Your task to perform on an android device: turn off priority inbox in the gmail app Image 0: 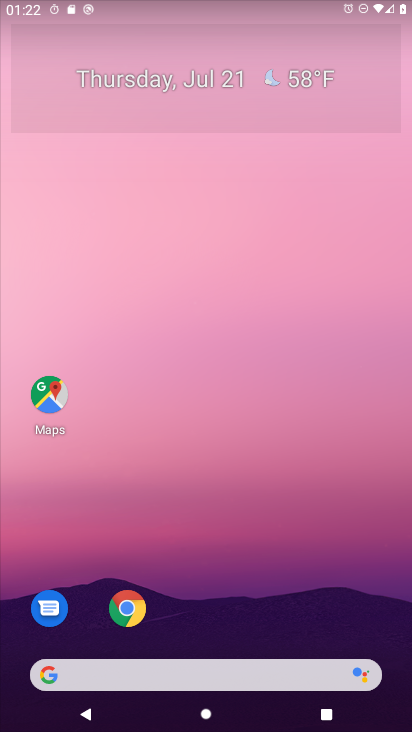
Step 0: press home button
Your task to perform on an android device: turn off priority inbox in the gmail app Image 1: 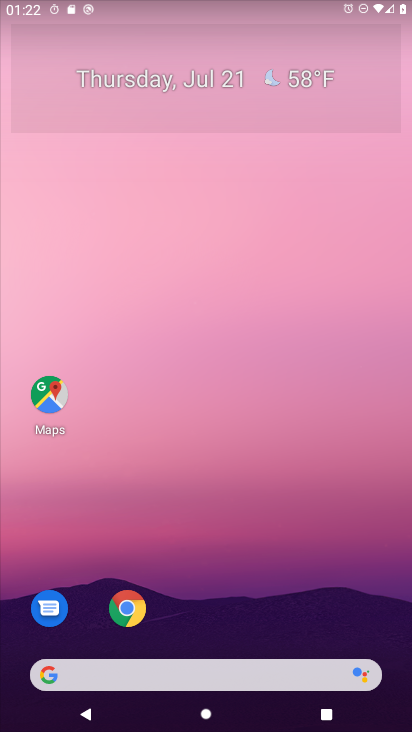
Step 1: drag from (196, 625) to (201, 24)
Your task to perform on an android device: turn off priority inbox in the gmail app Image 2: 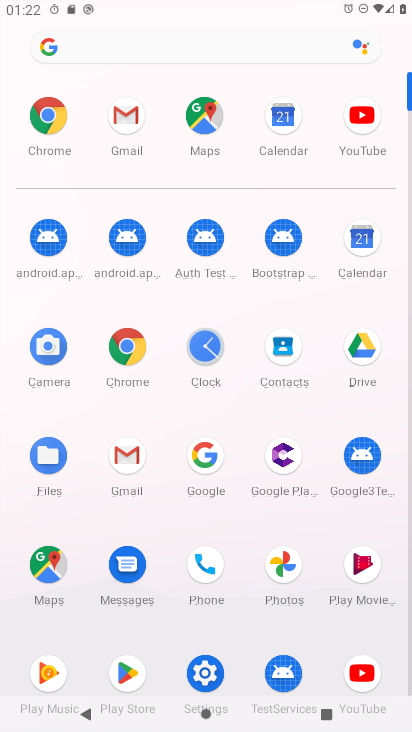
Step 2: click (122, 119)
Your task to perform on an android device: turn off priority inbox in the gmail app Image 3: 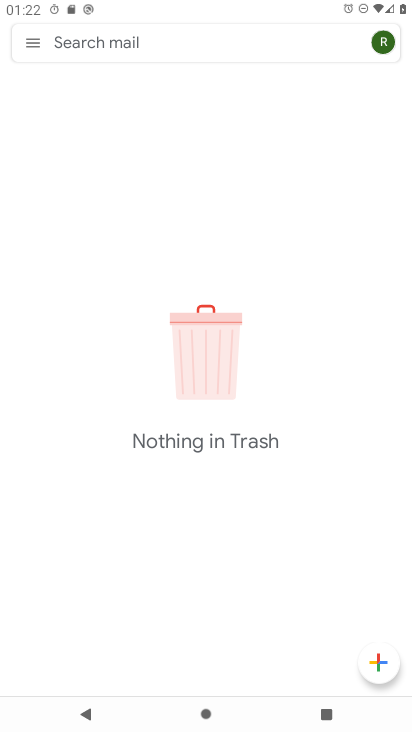
Step 3: click (24, 46)
Your task to perform on an android device: turn off priority inbox in the gmail app Image 4: 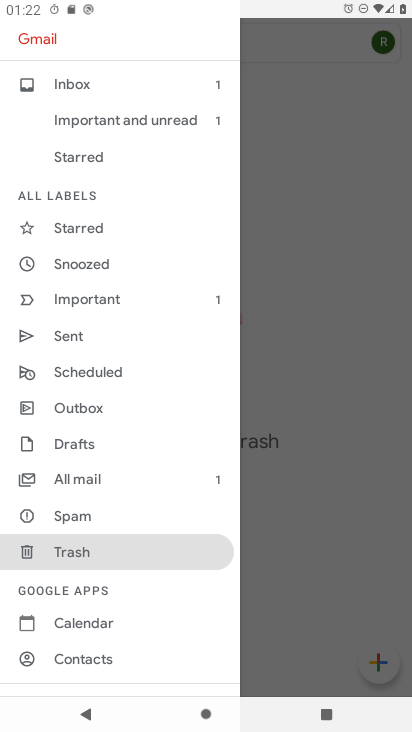
Step 4: drag from (170, 586) to (181, 195)
Your task to perform on an android device: turn off priority inbox in the gmail app Image 5: 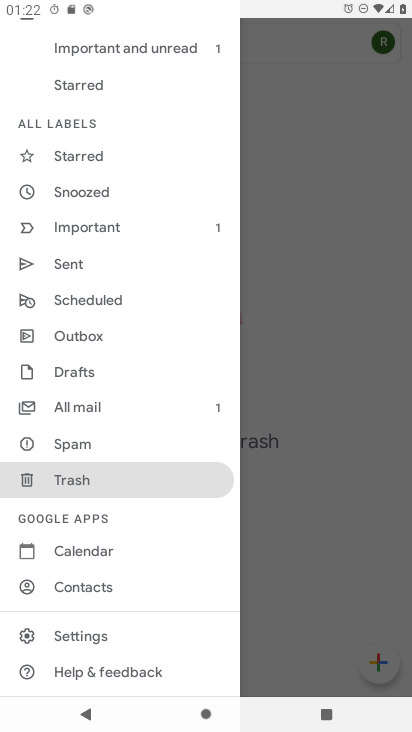
Step 5: click (66, 626)
Your task to perform on an android device: turn off priority inbox in the gmail app Image 6: 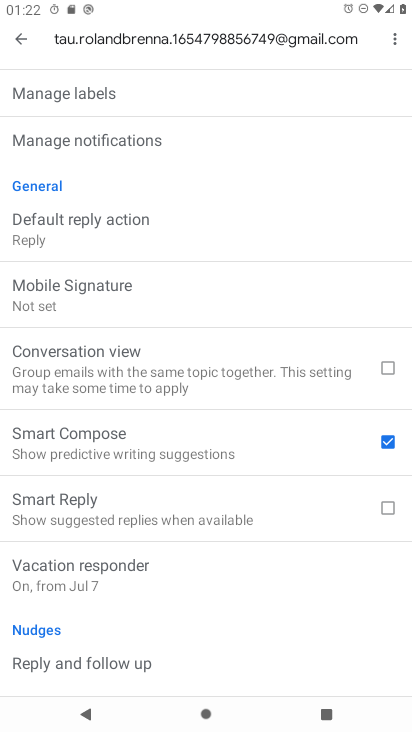
Step 6: drag from (180, 186) to (133, 627)
Your task to perform on an android device: turn off priority inbox in the gmail app Image 7: 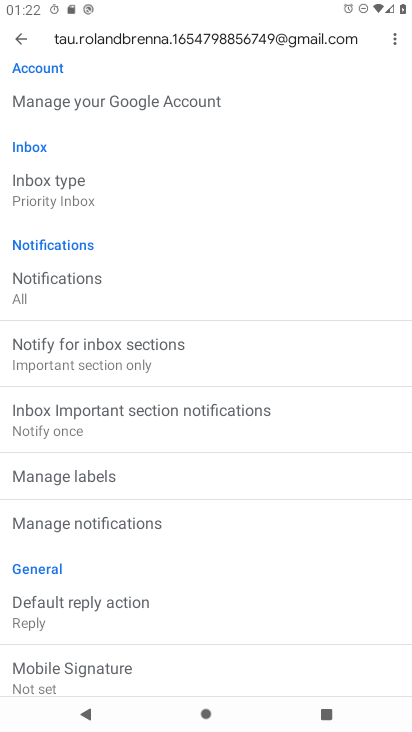
Step 7: click (59, 194)
Your task to perform on an android device: turn off priority inbox in the gmail app Image 8: 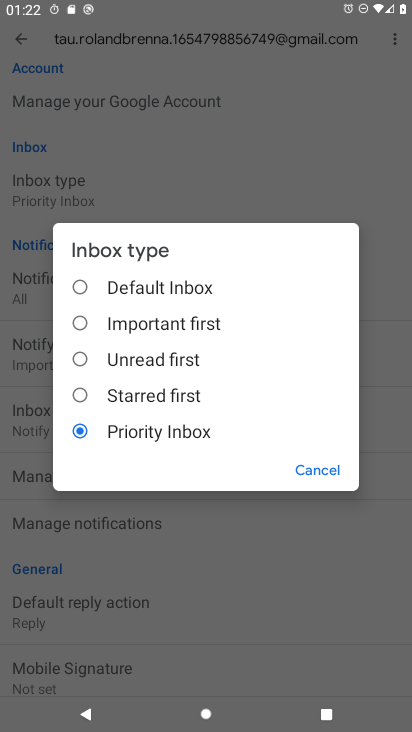
Step 8: click (76, 287)
Your task to perform on an android device: turn off priority inbox in the gmail app Image 9: 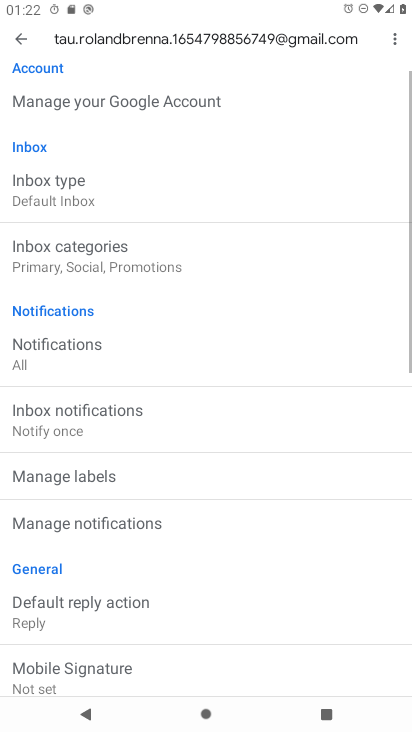
Step 9: task complete